Your task to perform on an android device: turn pop-ups off in chrome Image 0: 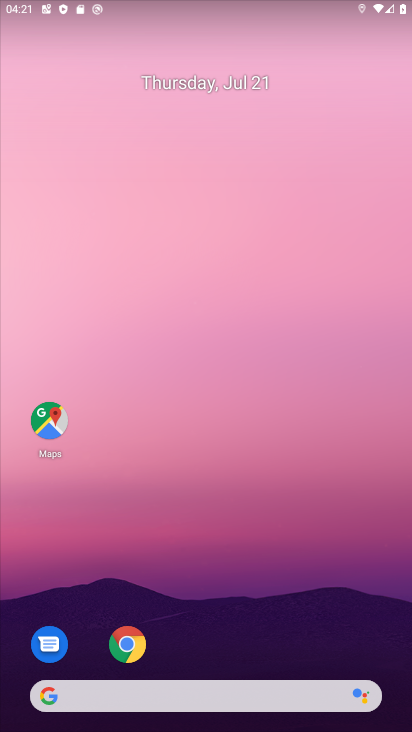
Step 0: click (132, 650)
Your task to perform on an android device: turn pop-ups off in chrome Image 1: 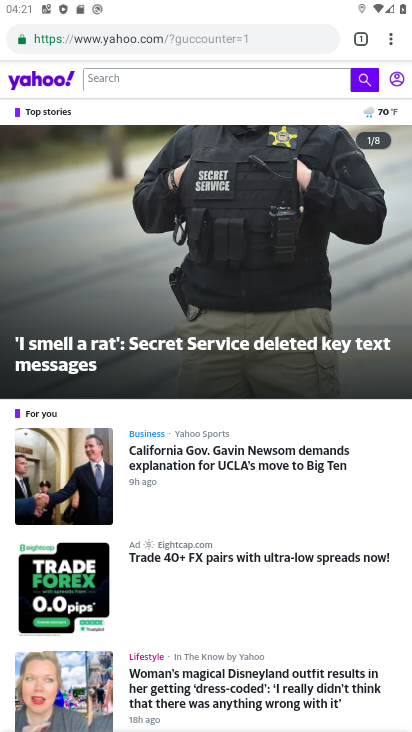
Step 1: click (390, 41)
Your task to perform on an android device: turn pop-ups off in chrome Image 2: 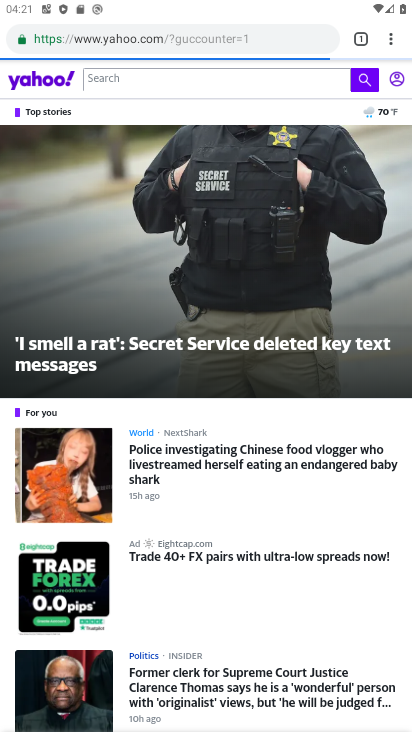
Step 2: click (393, 44)
Your task to perform on an android device: turn pop-ups off in chrome Image 3: 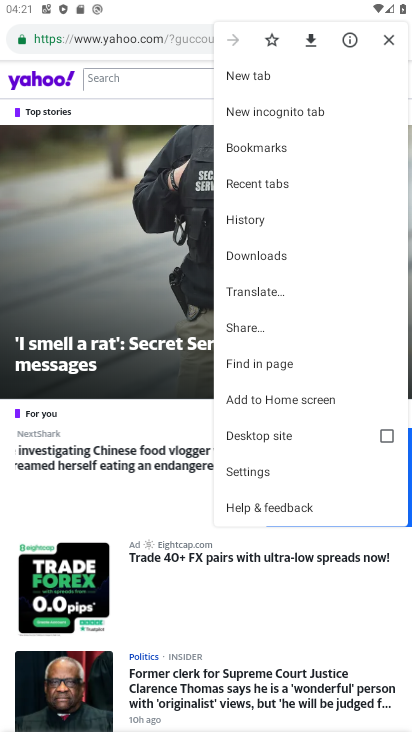
Step 3: click (252, 469)
Your task to perform on an android device: turn pop-ups off in chrome Image 4: 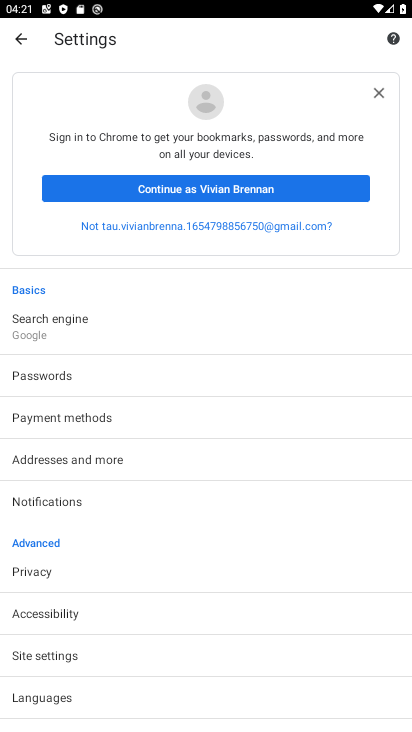
Step 4: click (56, 660)
Your task to perform on an android device: turn pop-ups off in chrome Image 5: 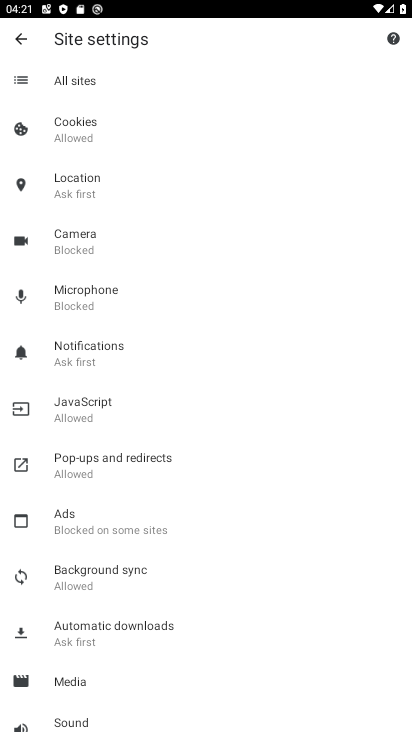
Step 5: click (99, 468)
Your task to perform on an android device: turn pop-ups off in chrome Image 6: 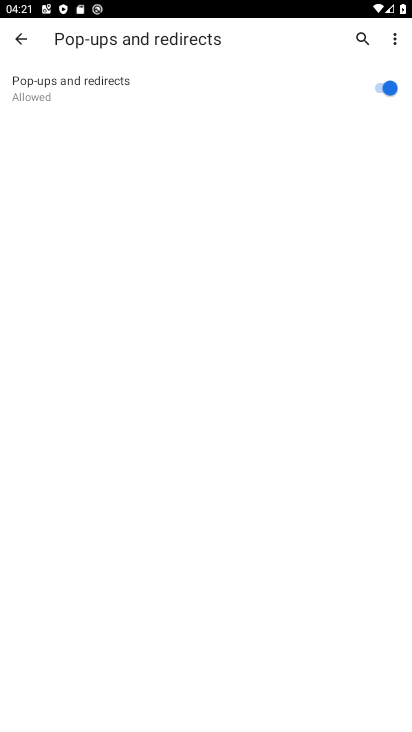
Step 6: click (390, 90)
Your task to perform on an android device: turn pop-ups off in chrome Image 7: 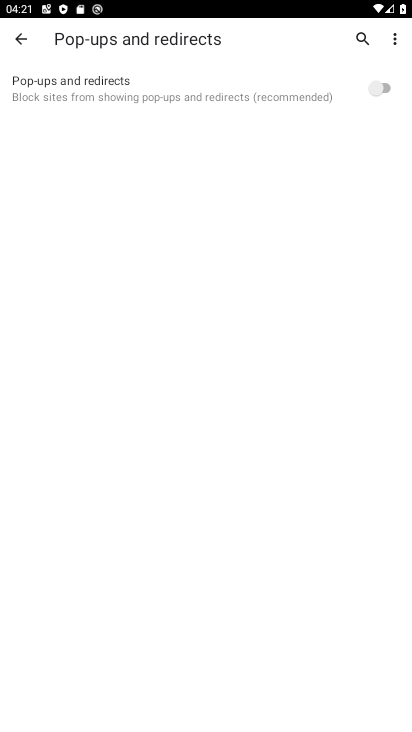
Step 7: task complete